Your task to perform on an android device: Open privacy settings Image 0: 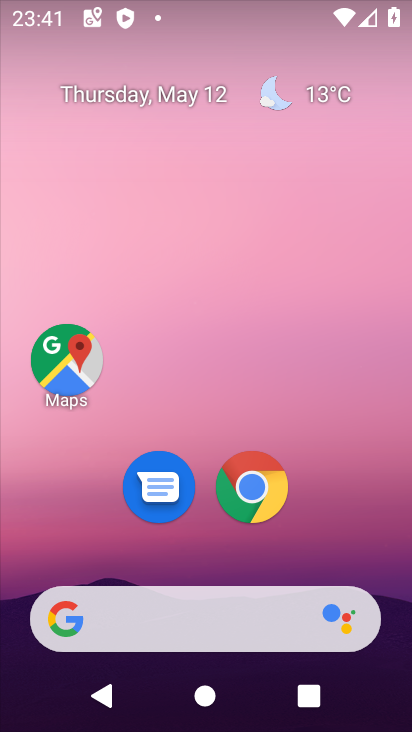
Step 0: drag from (219, 537) to (239, 29)
Your task to perform on an android device: Open privacy settings Image 1: 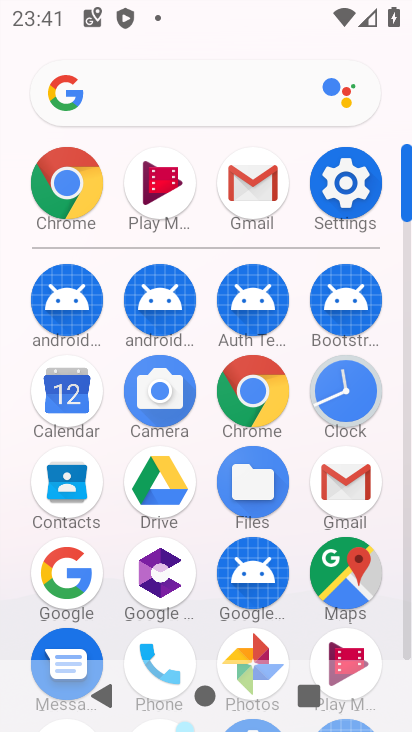
Step 1: click (364, 196)
Your task to perform on an android device: Open privacy settings Image 2: 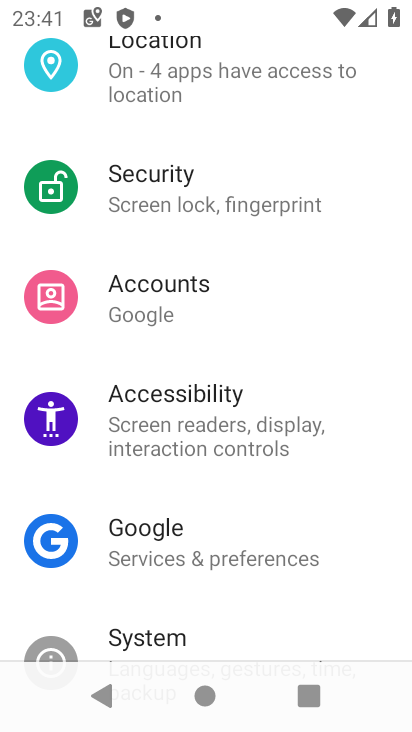
Step 2: drag from (213, 451) to (250, 176)
Your task to perform on an android device: Open privacy settings Image 3: 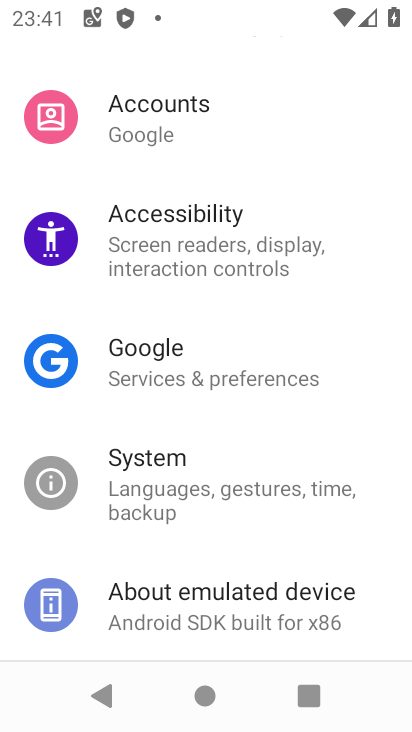
Step 3: drag from (264, 179) to (287, 620)
Your task to perform on an android device: Open privacy settings Image 4: 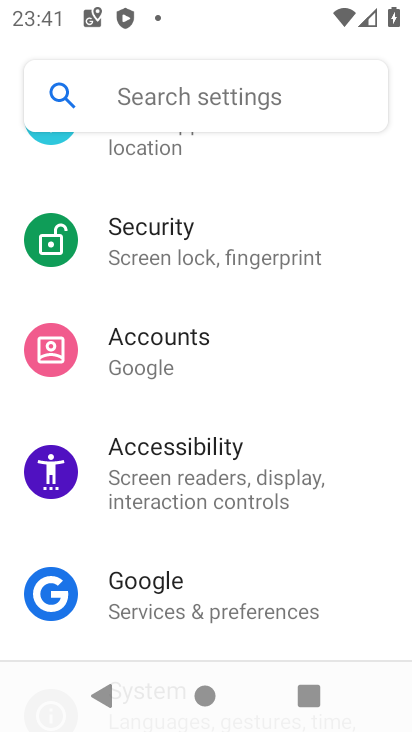
Step 4: drag from (227, 157) to (300, 560)
Your task to perform on an android device: Open privacy settings Image 5: 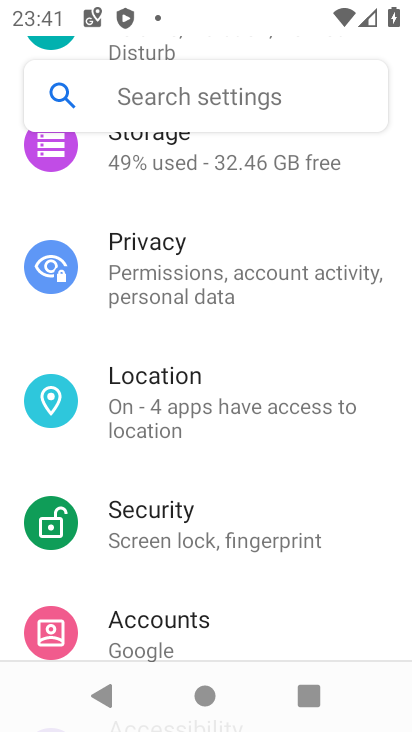
Step 5: click (184, 231)
Your task to perform on an android device: Open privacy settings Image 6: 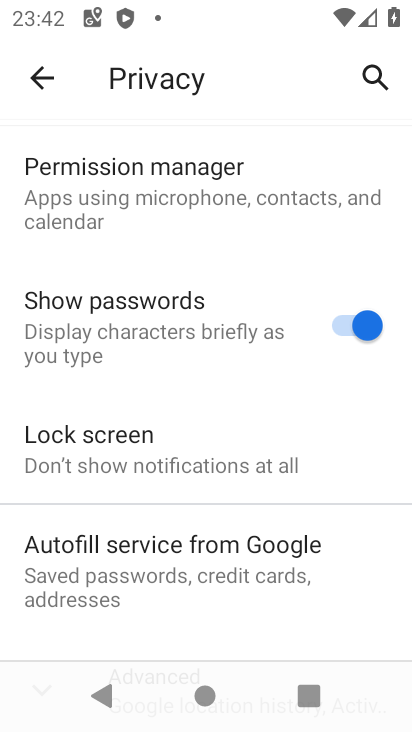
Step 6: task complete